Your task to perform on an android device: install app "Google News" Image 0: 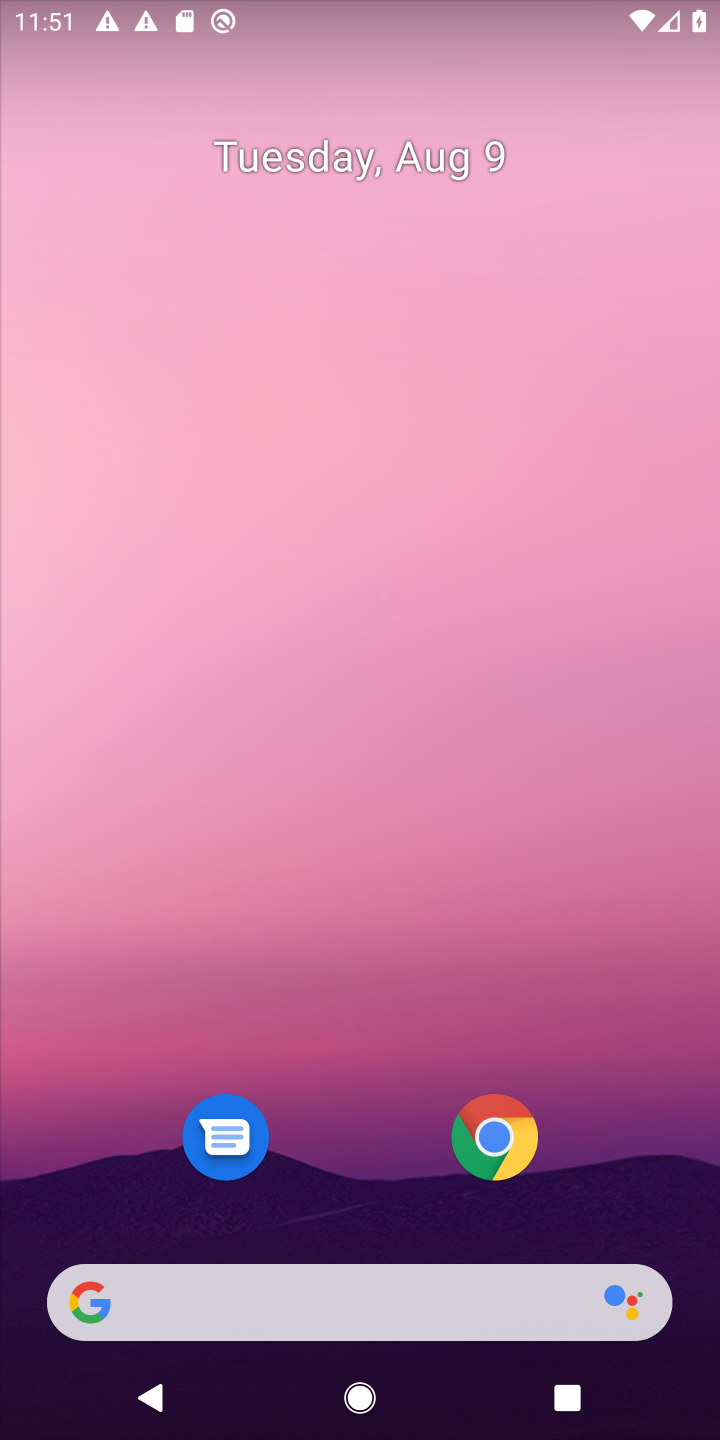
Step 0: drag from (374, 1210) to (473, 261)
Your task to perform on an android device: install app "Google News" Image 1: 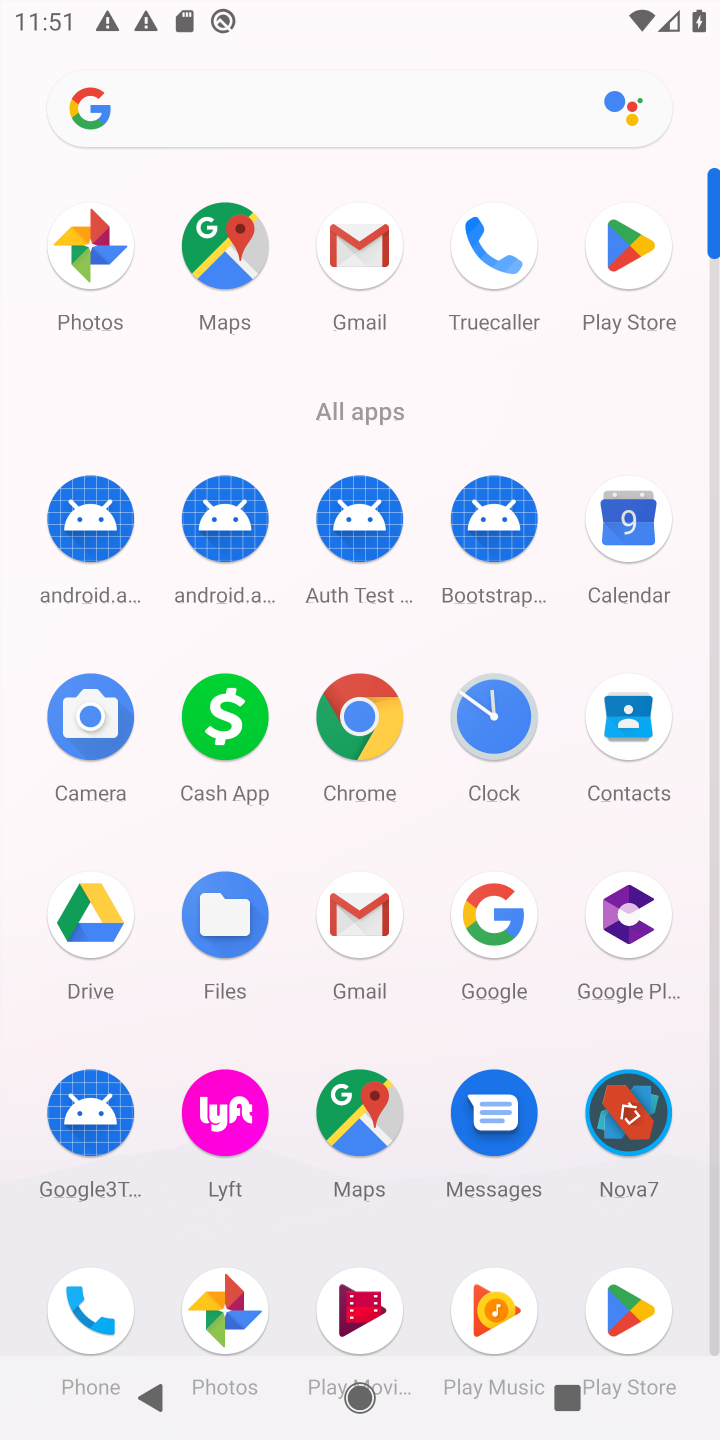
Step 1: click (615, 239)
Your task to perform on an android device: install app "Google News" Image 2: 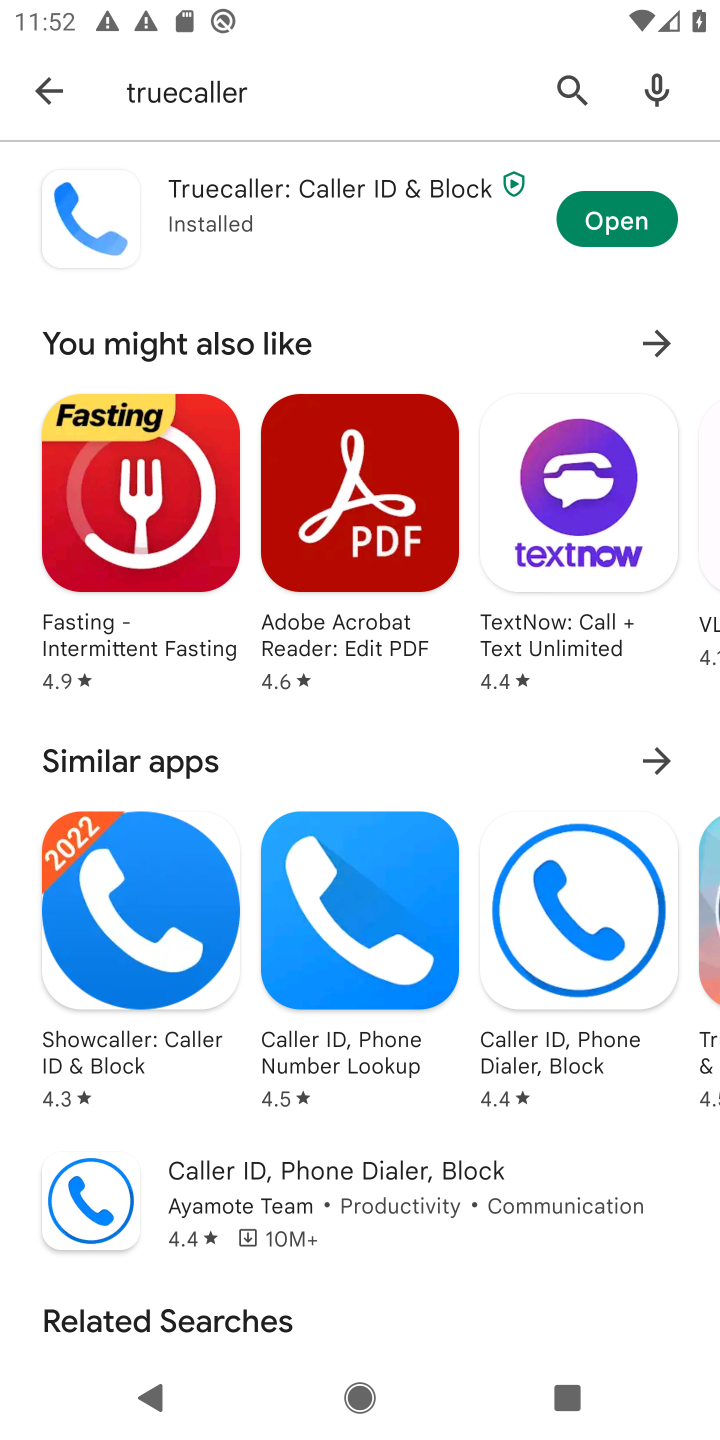
Step 2: click (562, 93)
Your task to perform on an android device: install app "Google News" Image 3: 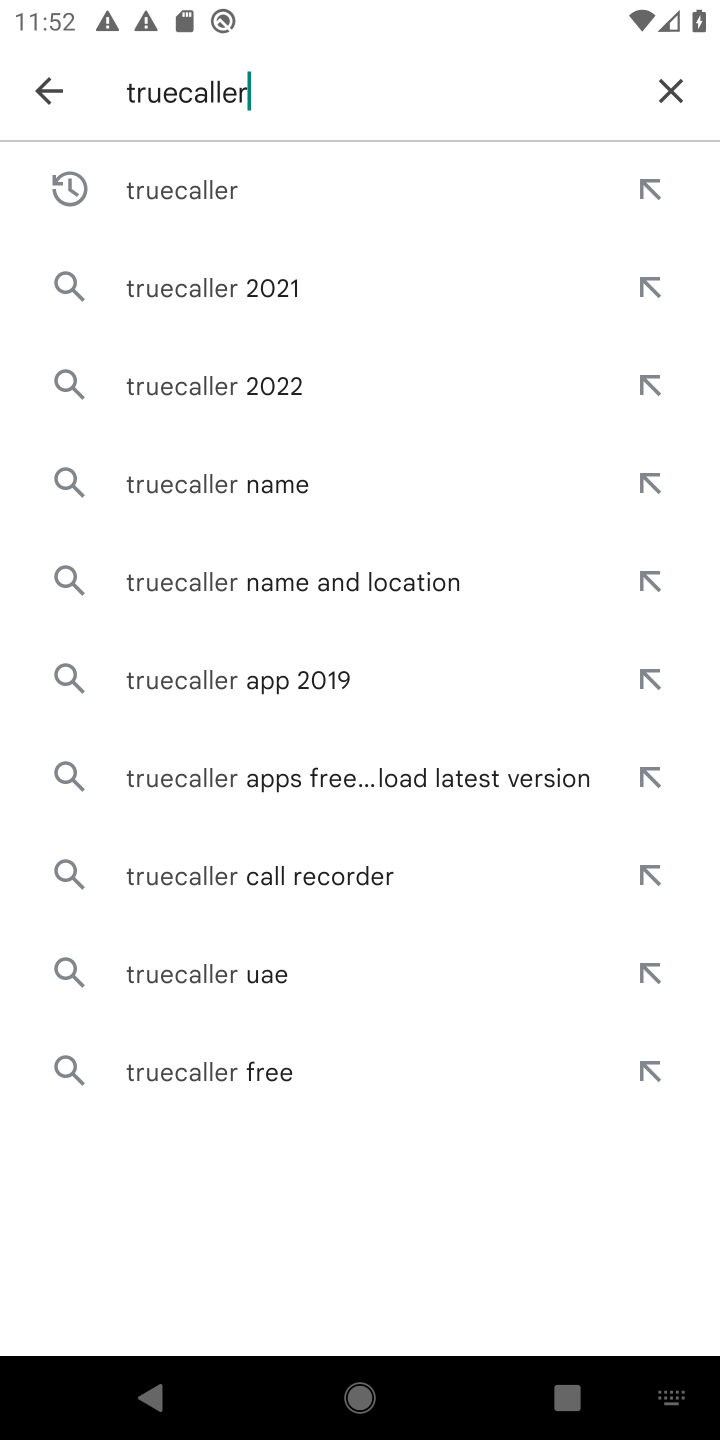
Step 3: click (660, 93)
Your task to perform on an android device: install app "Google News" Image 4: 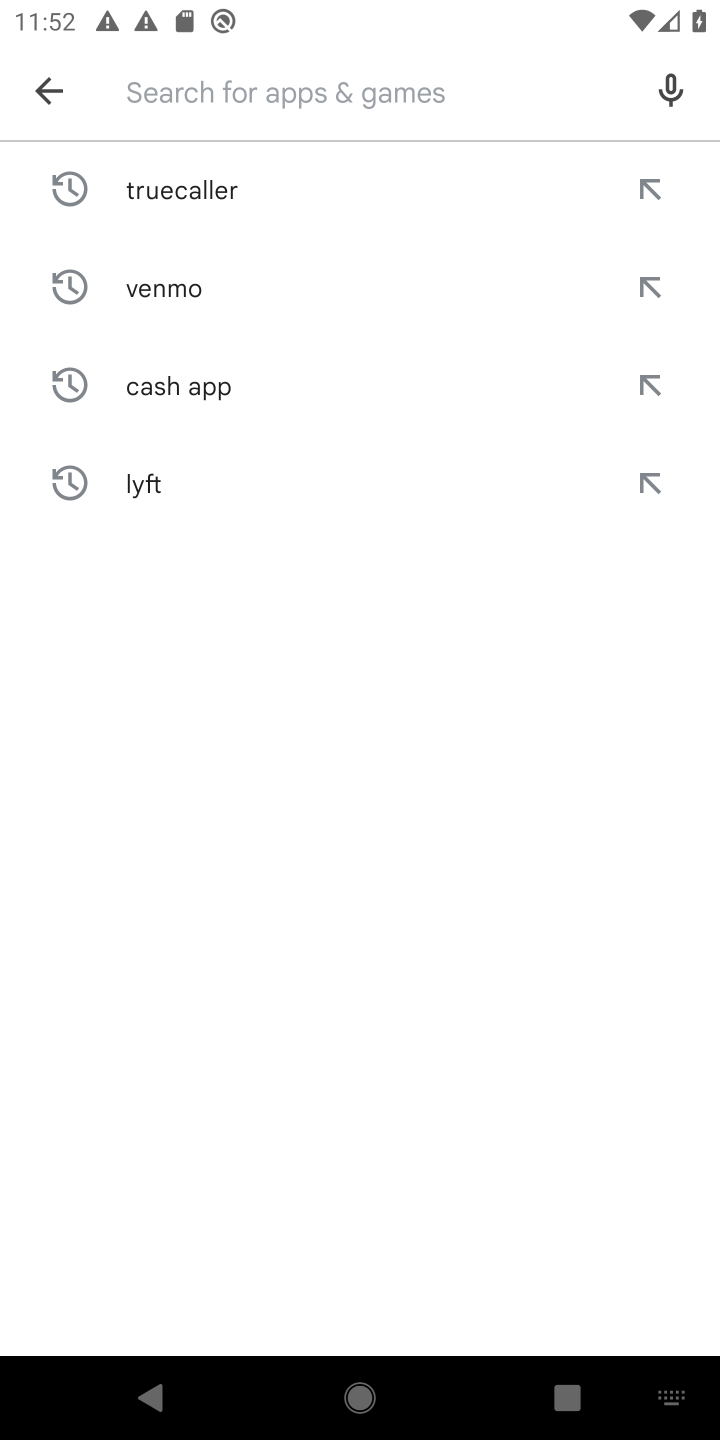
Step 4: type "Google News"
Your task to perform on an android device: install app "Google News" Image 5: 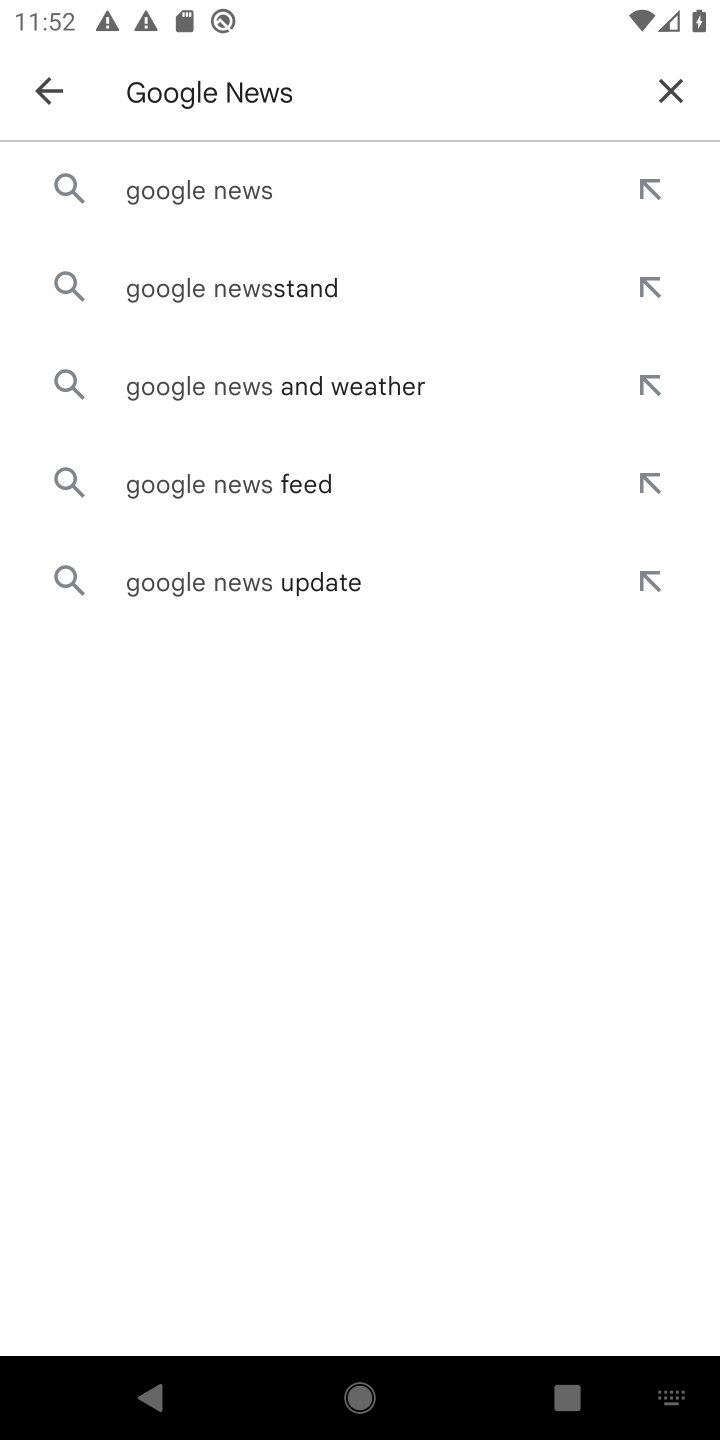
Step 5: click (291, 189)
Your task to perform on an android device: install app "Google News" Image 6: 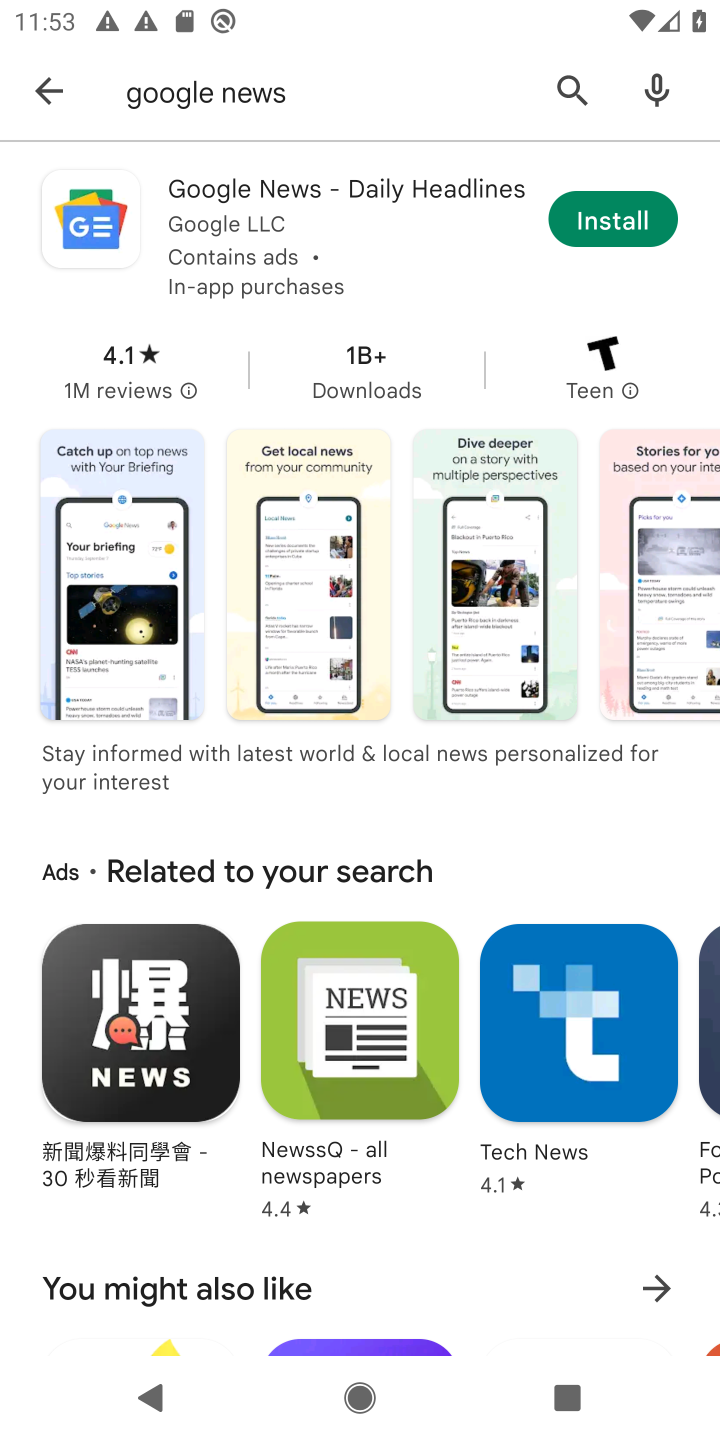
Step 6: click (590, 224)
Your task to perform on an android device: install app "Google News" Image 7: 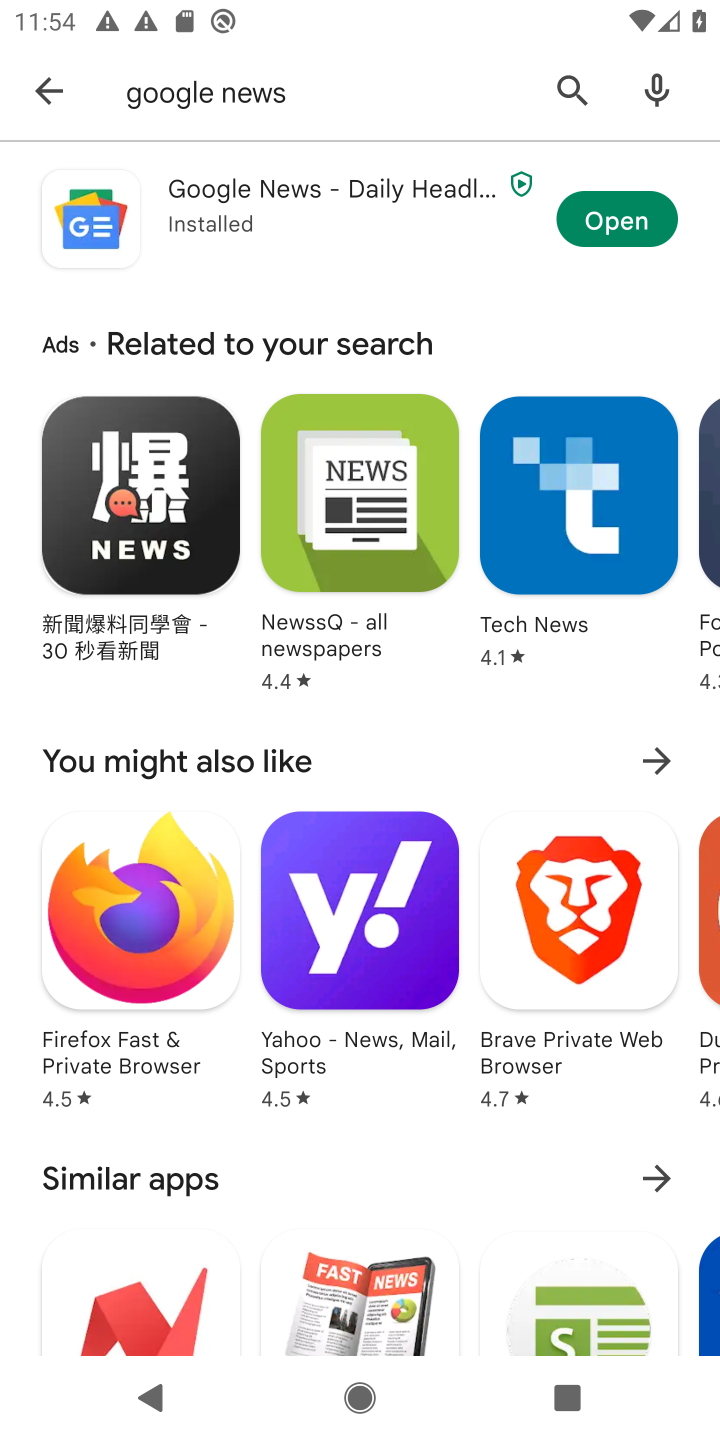
Step 7: click (590, 224)
Your task to perform on an android device: install app "Google News" Image 8: 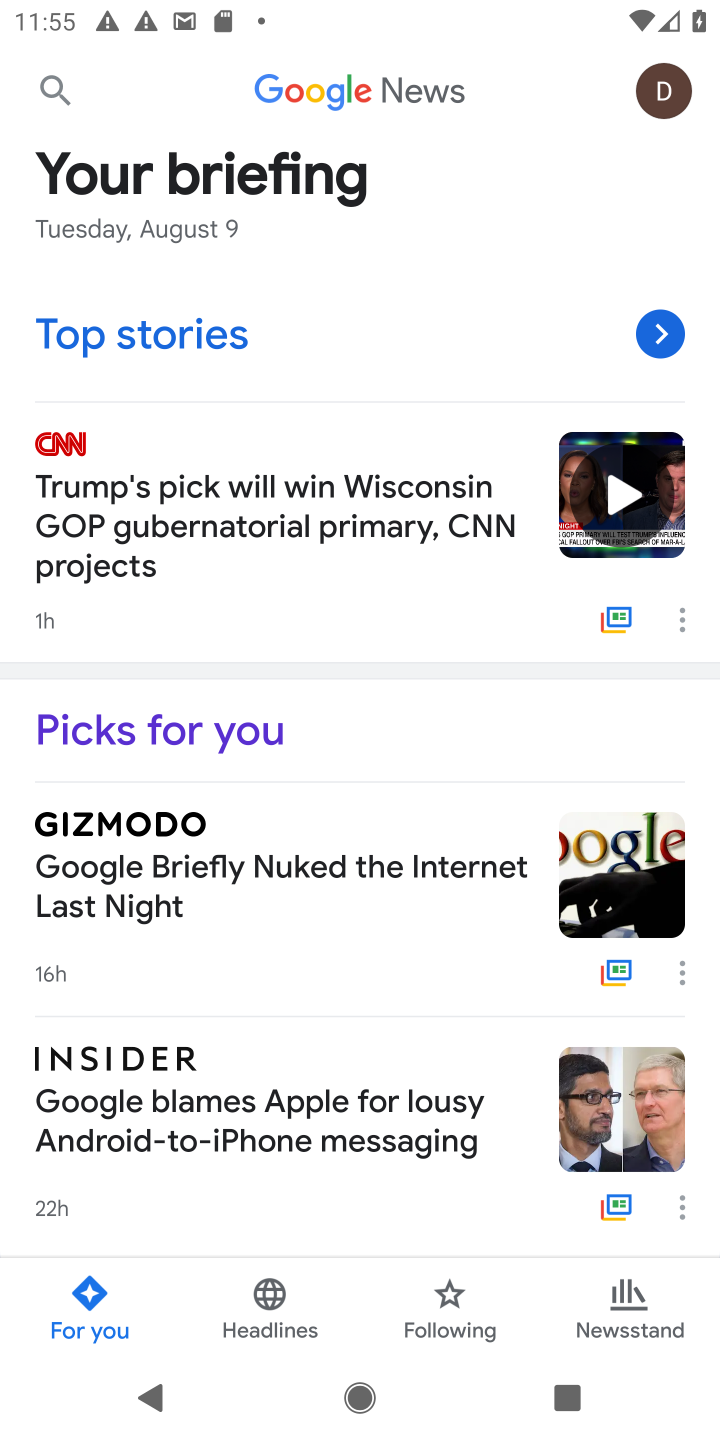
Step 8: task complete